Your task to perform on an android device: turn on javascript in the chrome app Image 0: 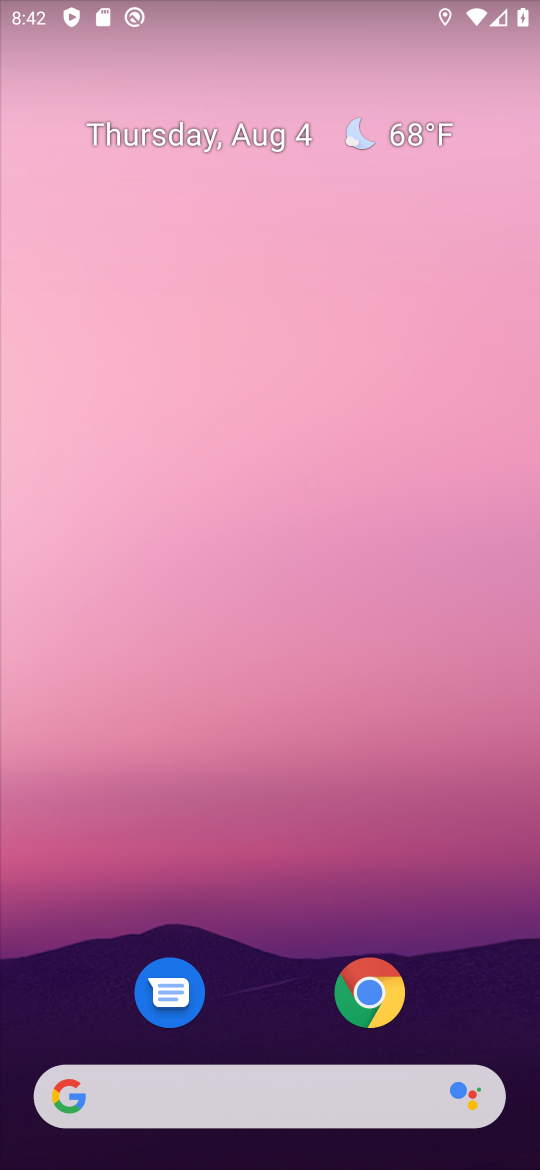
Step 0: click (368, 1003)
Your task to perform on an android device: turn on javascript in the chrome app Image 1: 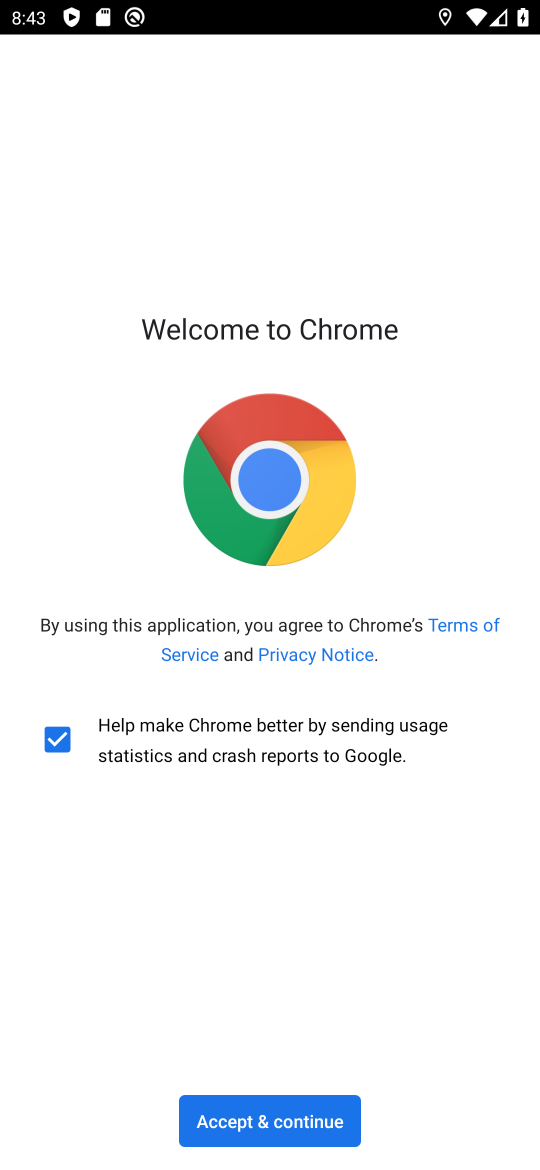
Step 1: click (304, 1126)
Your task to perform on an android device: turn on javascript in the chrome app Image 2: 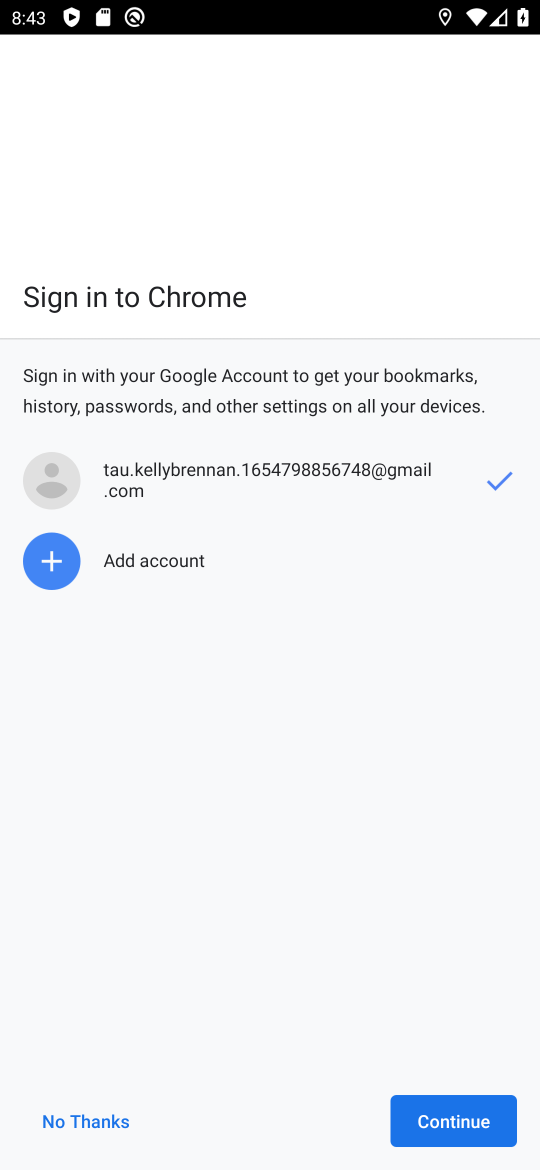
Step 2: click (72, 1131)
Your task to perform on an android device: turn on javascript in the chrome app Image 3: 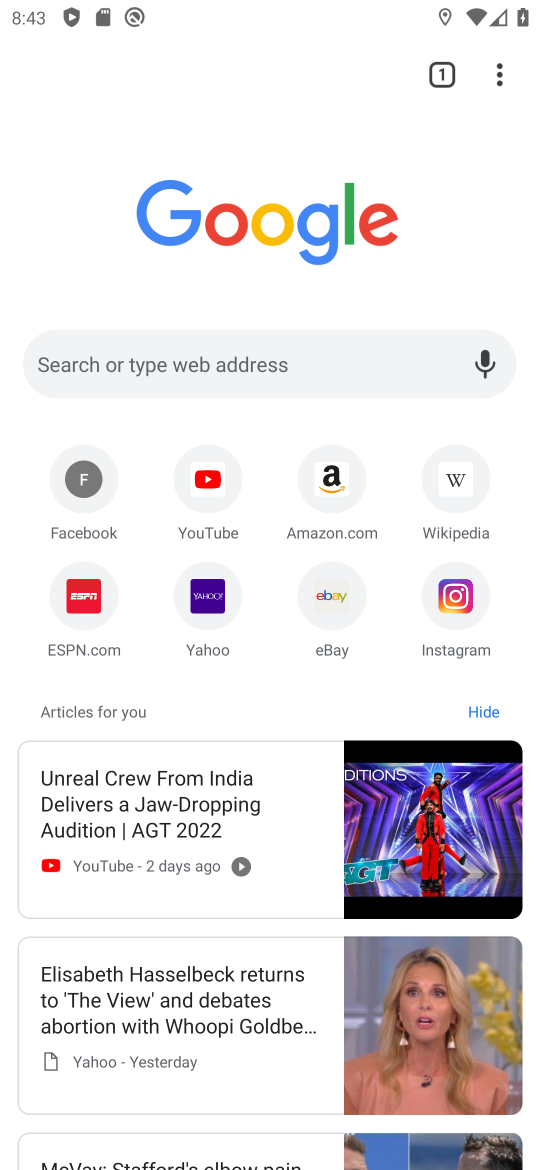
Step 3: click (502, 70)
Your task to perform on an android device: turn on javascript in the chrome app Image 4: 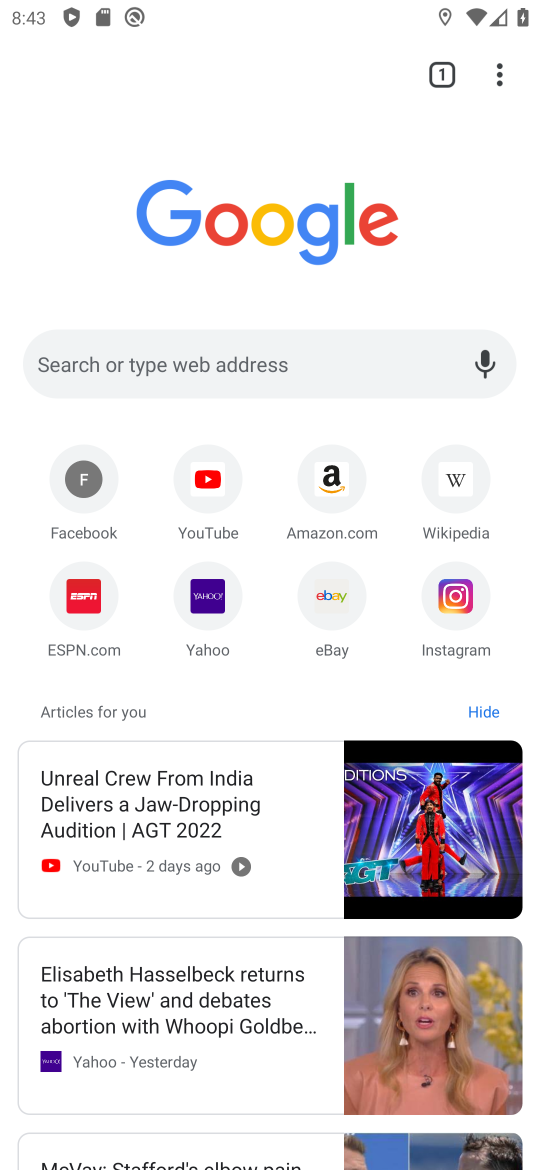
Step 4: click (499, 76)
Your task to perform on an android device: turn on javascript in the chrome app Image 5: 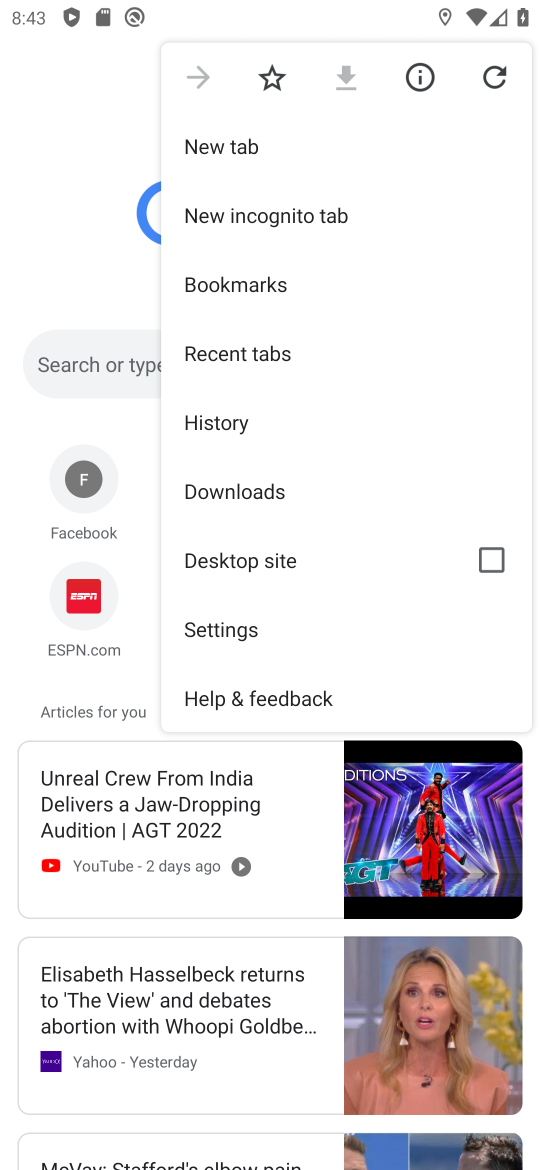
Step 5: click (215, 621)
Your task to perform on an android device: turn on javascript in the chrome app Image 6: 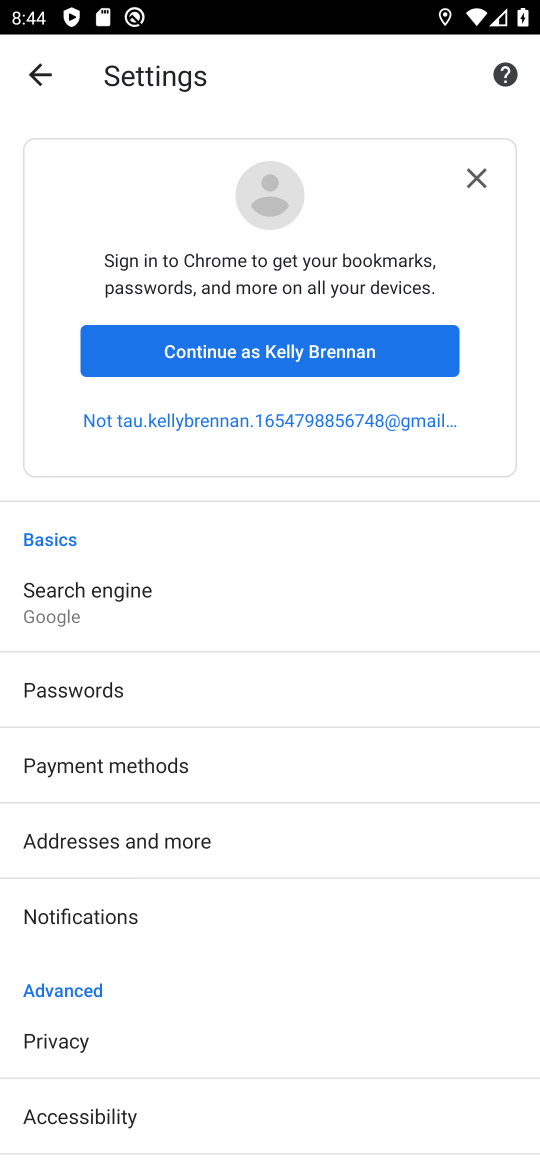
Step 6: drag from (55, 836) to (230, 427)
Your task to perform on an android device: turn on javascript in the chrome app Image 7: 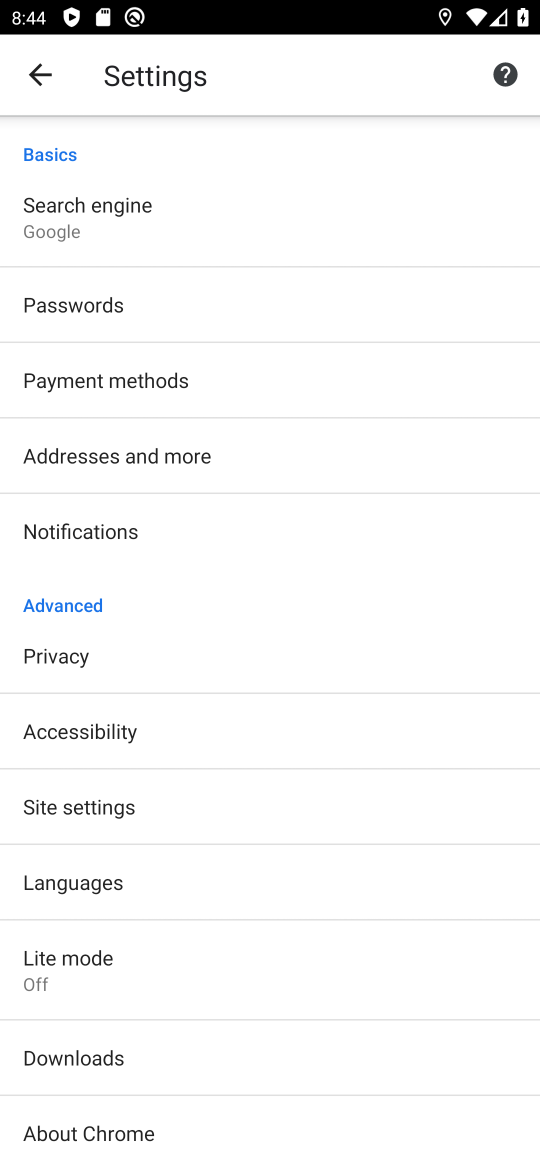
Step 7: click (85, 800)
Your task to perform on an android device: turn on javascript in the chrome app Image 8: 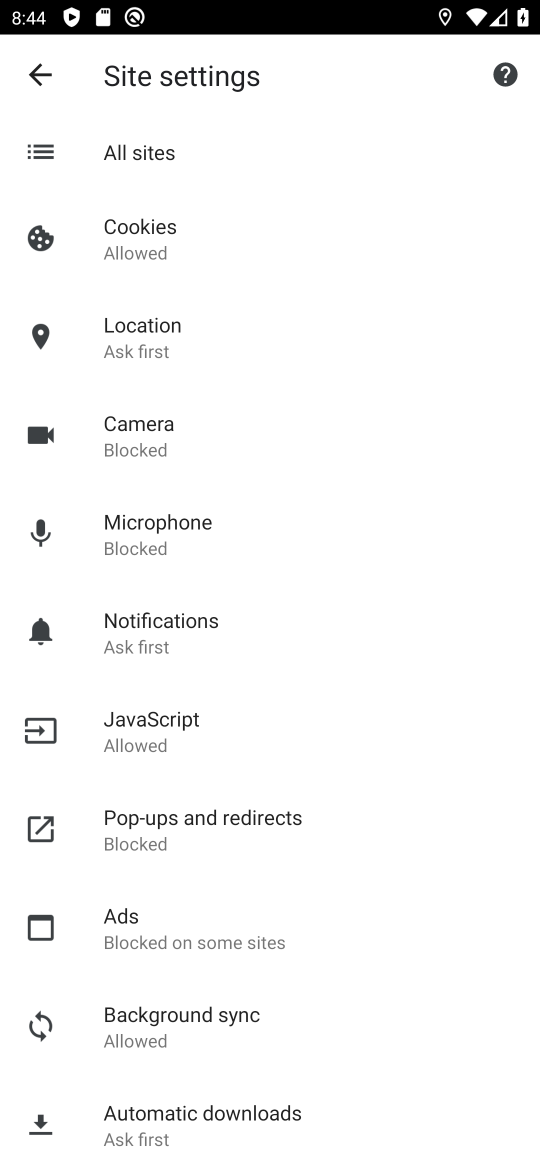
Step 8: click (140, 738)
Your task to perform on an android device: turn on javascript in the chrome app Image 9: 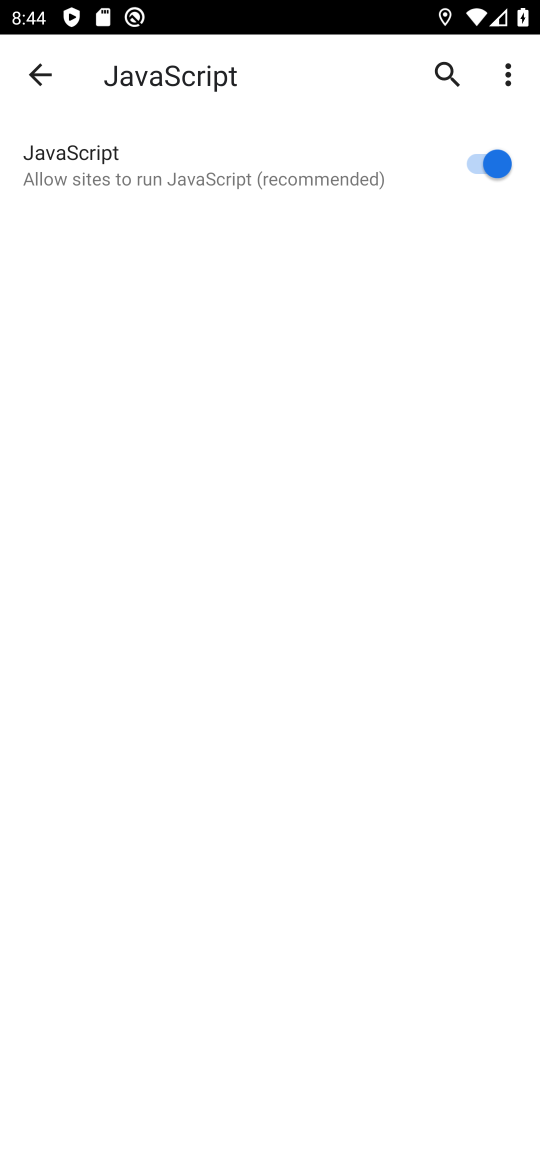
Step 9: task complete